Your task to perform on an android device: change text size in settings app Image 0: 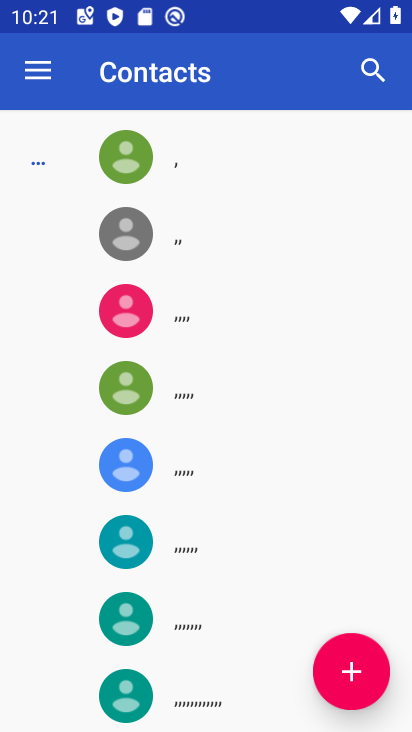
Step 0: press home button
Your task to perform on an android device: change text size in settings app Image 1: 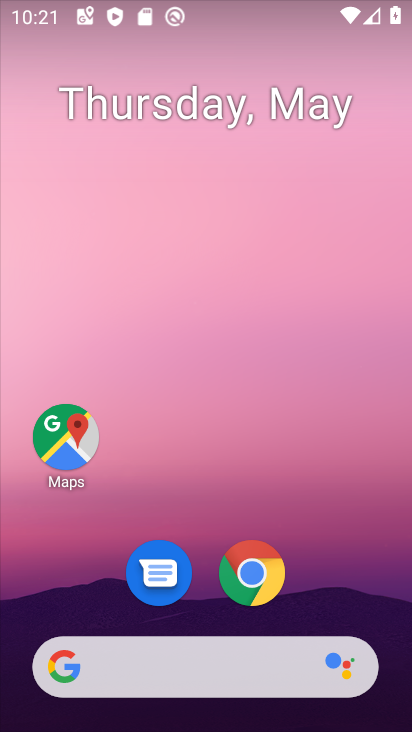
Step 1: drag from (379, 579) to (368, 204)
Your task to perform on an android device: change text size in settings app Image 2: 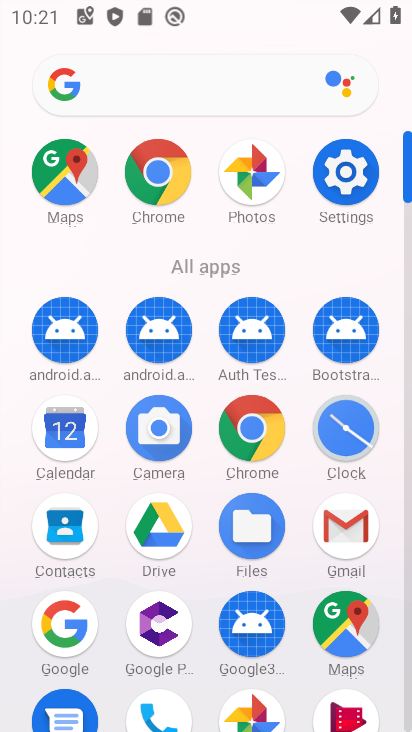
Step 2: click (374, 186)
Your task to perform on an android device: change text size in settings app Image 3: 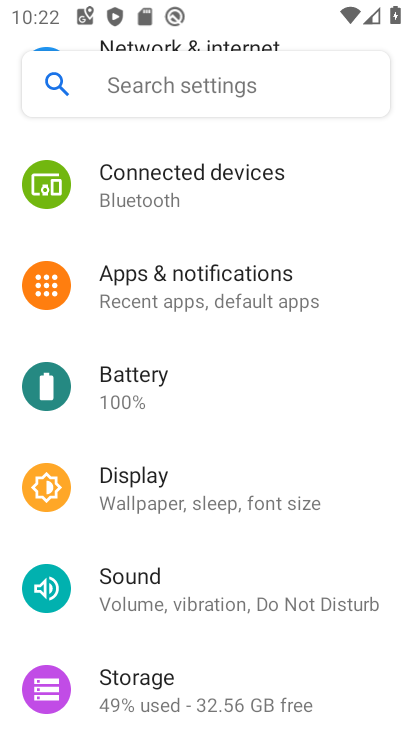
Step 3: drag from (254, 540) to (303, 334)
Your task to perform on an android device: change text size in settings app Image 4: 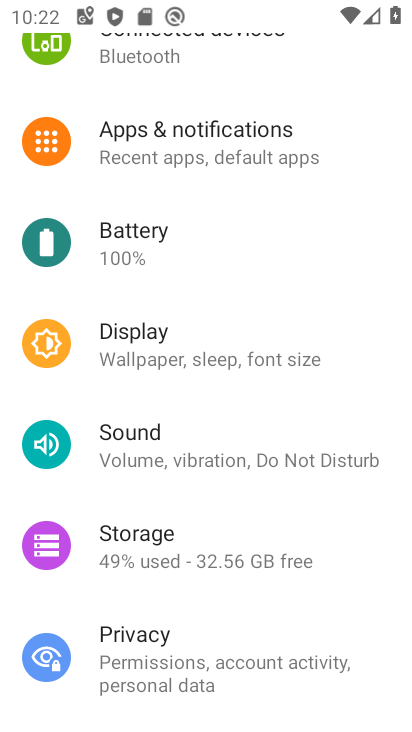
Step 4: drag from (280, 155) to (256, 480)
Your task to perform on an android device: change text size in settings app Image 5: 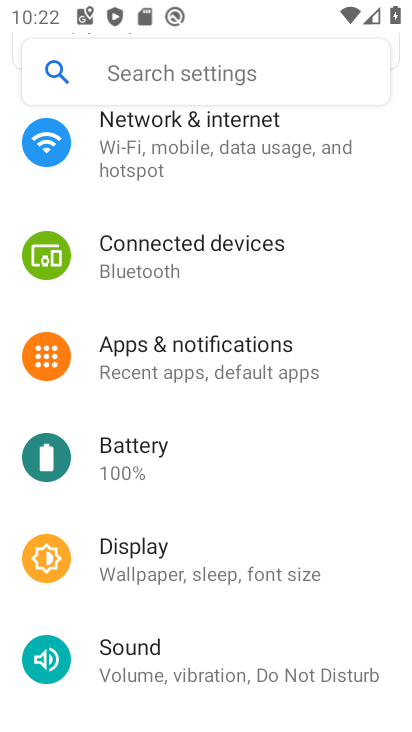
Step 5: click (202, 557)
Your task to perform on an android device: change text size in settings app Image 6: 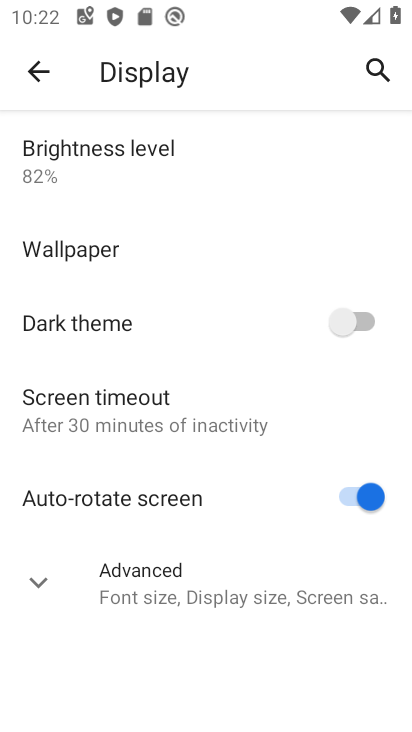
Step 6: click (194, 576)
Your task to perform on an android device: change text size in settings app Image 7: 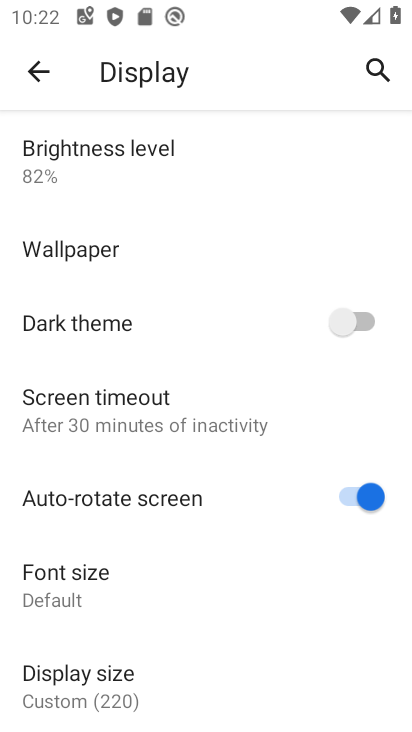
Step 7: click (140, 581)
Your task to perform on an android device: change text size in settings app Image 8: 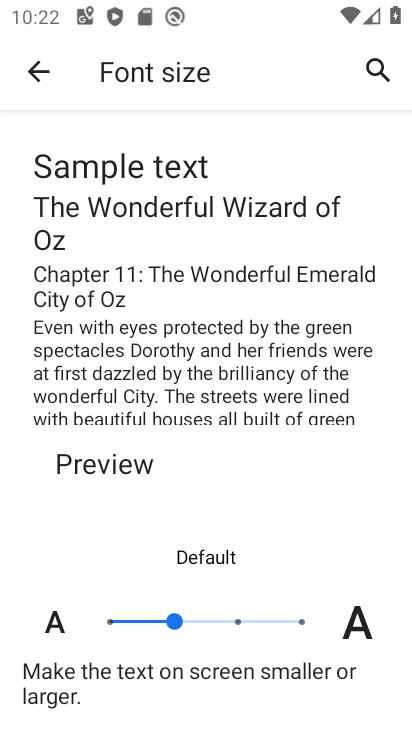
Step 8: click (112, 619)
Your task to perform on an android device: change text size in settings app Image 9: 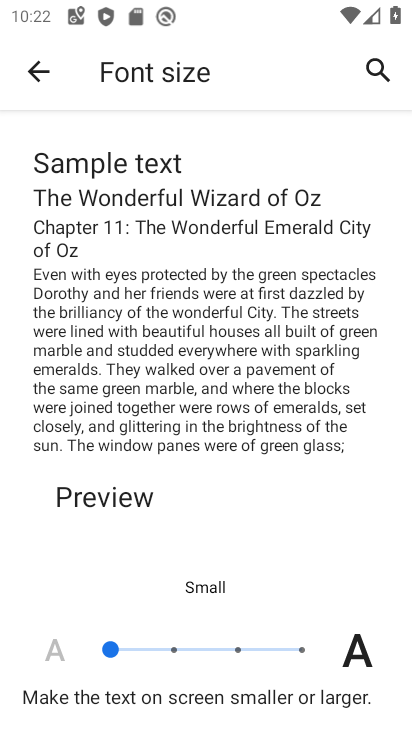
Step 9: task complete